Your task to perform on an android device: Go to accessibility settings Image 0: 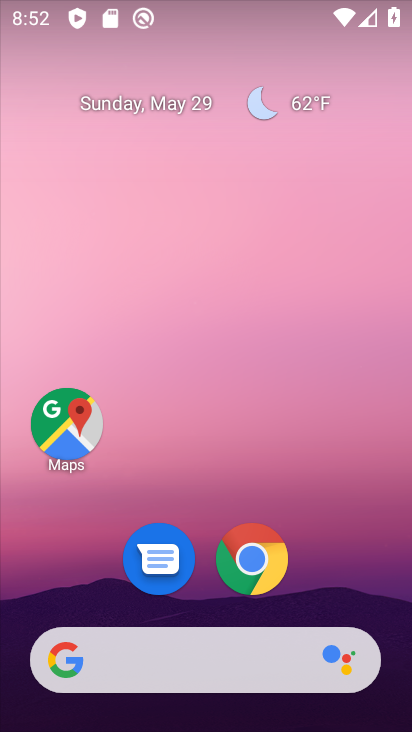
Step 0: drag from (319, 577) to (308, 293)
Your task to perform on an android device: Go to accessibility settings Image 1: 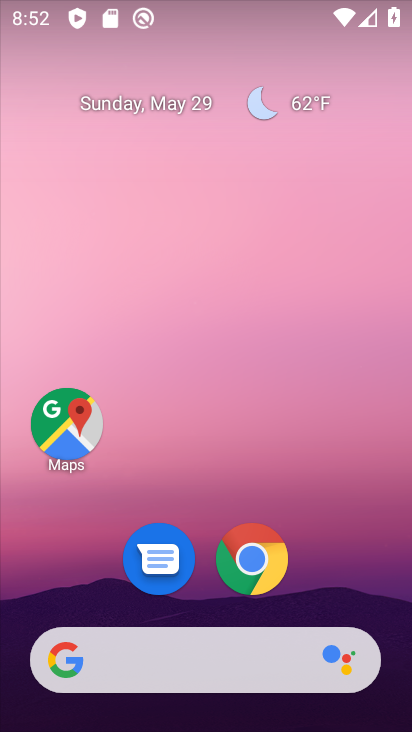
Step 1: drag from (295, 586) to (302, 172)
Your task to perform on an android device: Go to accessibility settings Image 2: 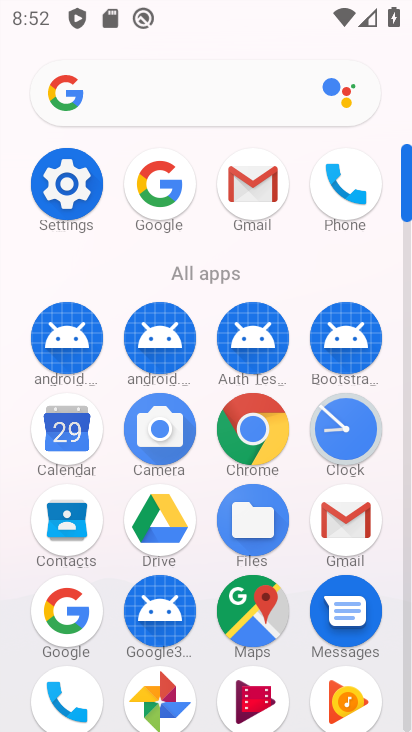
Step 2: click (69, 190)
Your task to perform on an android device: Go to accessibility settings Image 3: 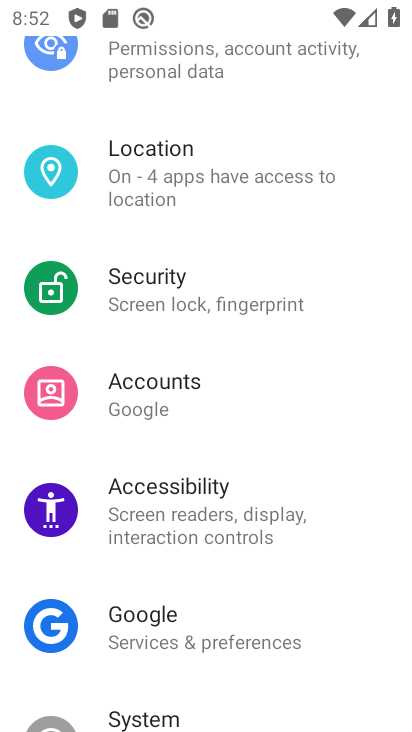
Step 3: click (187, 522)
Your task to perform on an android device: Go to accessibility settings Image 4: 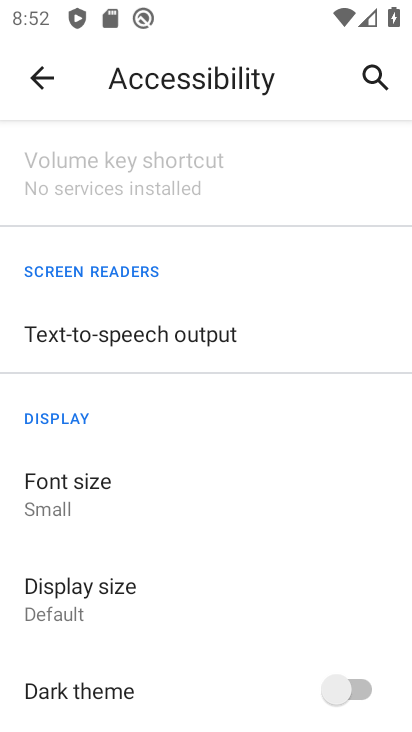
Step 4: task complete